Your task to perform on an android device: turn on notifications settings in the gmail app Image 0: 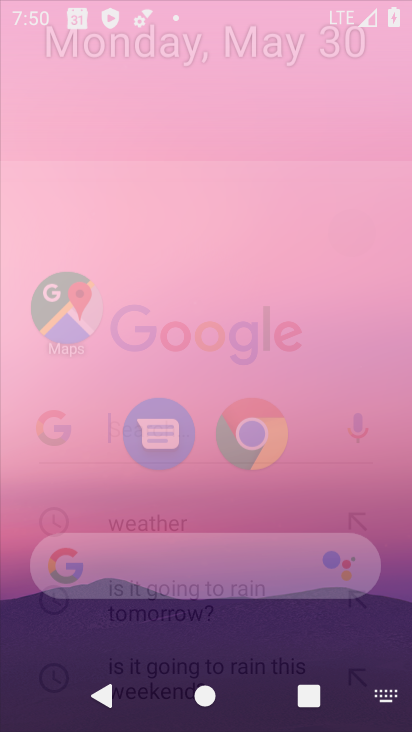
Step 0: click (62, 378)
Your task to perform on an android device: turn on notifications settings in the gmail app Image 1: 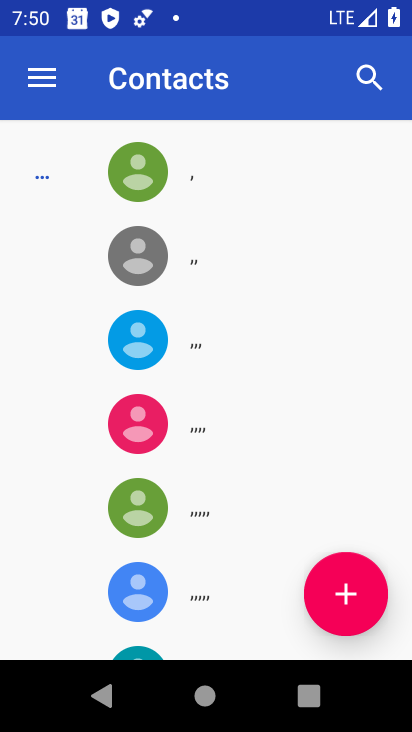
Step 1: press home button
Your task to perform on an android device: turn on notifications settings in the gmail app Image 2: 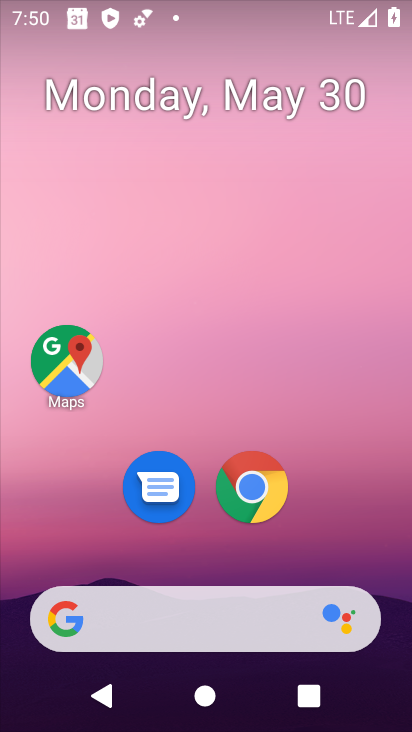
Step 2: drag from (383, 707) to (370, 123)
Your task to perform on an android device: turn on notifications settings in the gmail app Image 3: 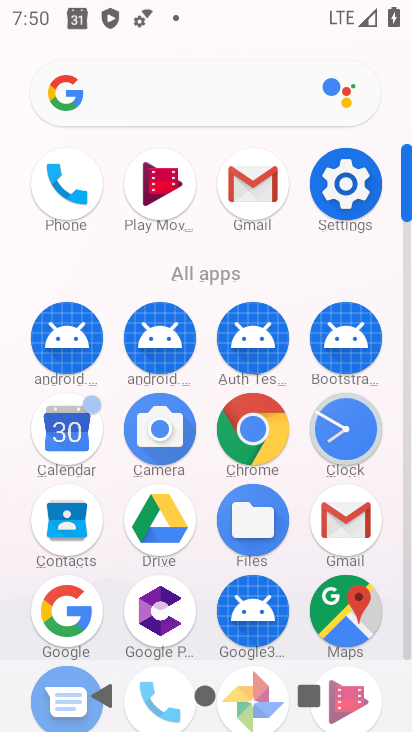
Step 3: click (330, 528)
Your task to perform on an android device: turn on notifications settings in the gmail app Image 4: 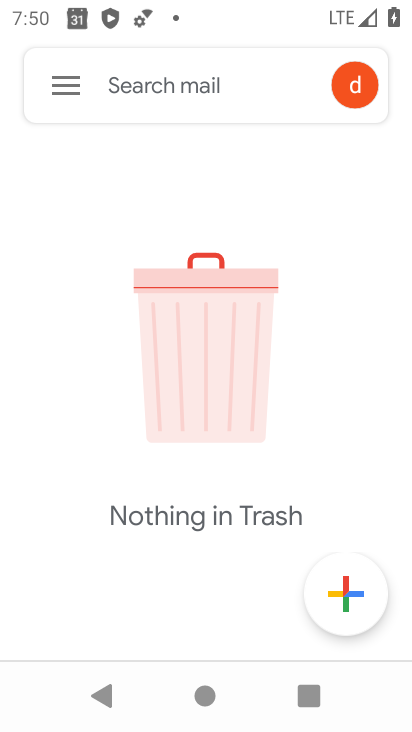
Step 4: click (74, 86)
Your task to perform on an android device: turn on notifications settings in the gmail app Image 5: 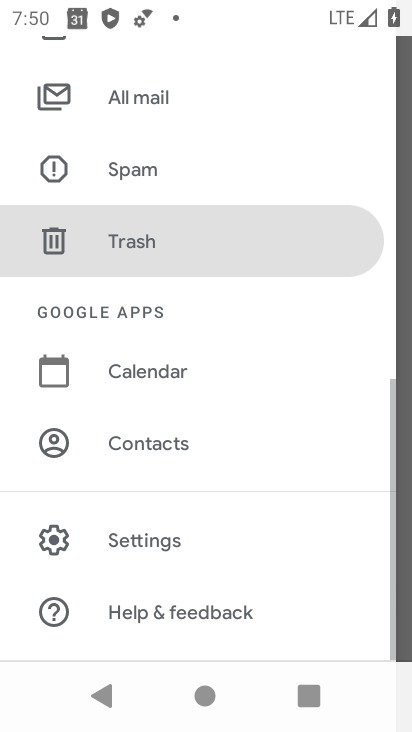
Step 5: click (123, 546)
Your task to perform on an android device: turn on notifications settings in the gmail app Image 6: 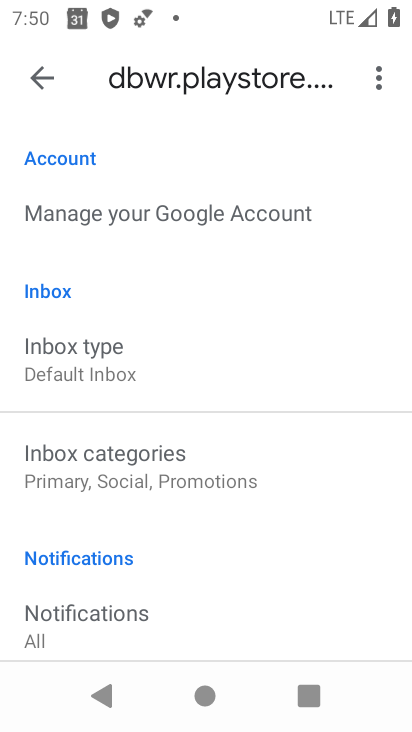
Step 6: click (53, 74)
Your task to perform on an android device: turn on notifications settings in the gmail app Image 7: 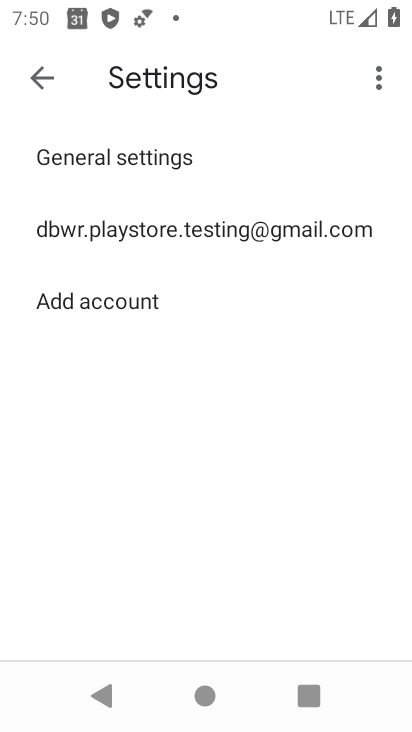
Step 7: click (63, 152)
Your task to perform on an android device: turn on notifications settings in the gmail app Image 8: 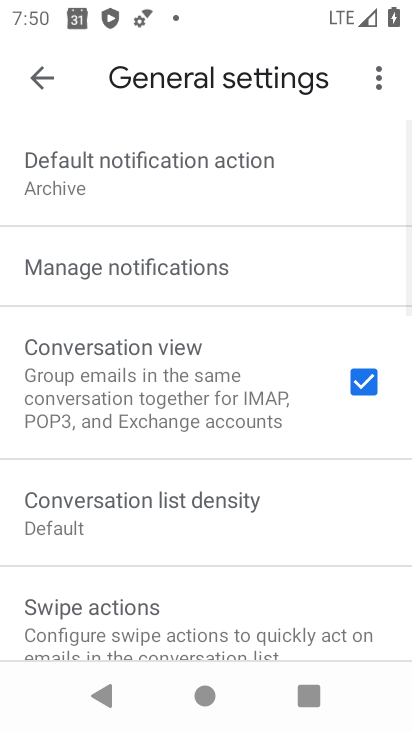
Step 8: click (95, 266)
Your task to perform on an android device: turn on notifications settings in the gmail app Image 9: 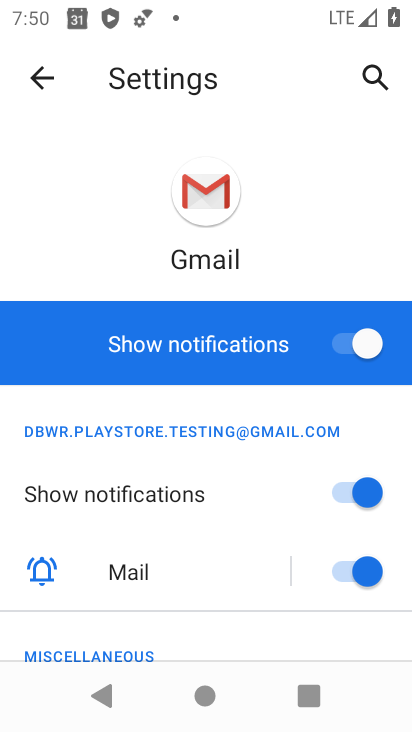
Step 9: task complete